Your task to perform on an android device: Turn on the flashlight Image 0: 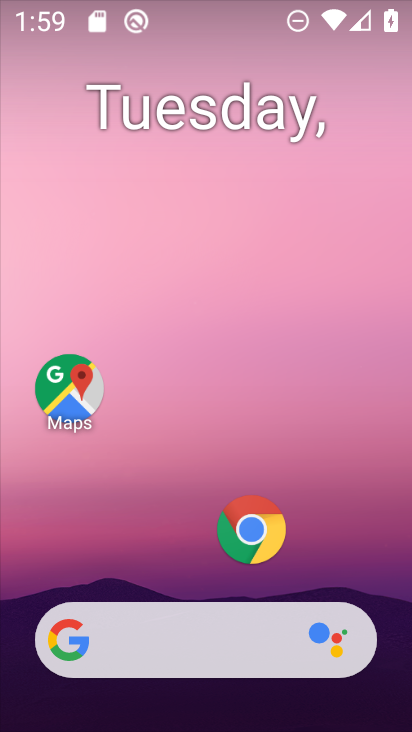
Step 0: drag from (244, 681) to (205, 20)
Your task to perform on an android device: Turn on the flashlight Image 1: 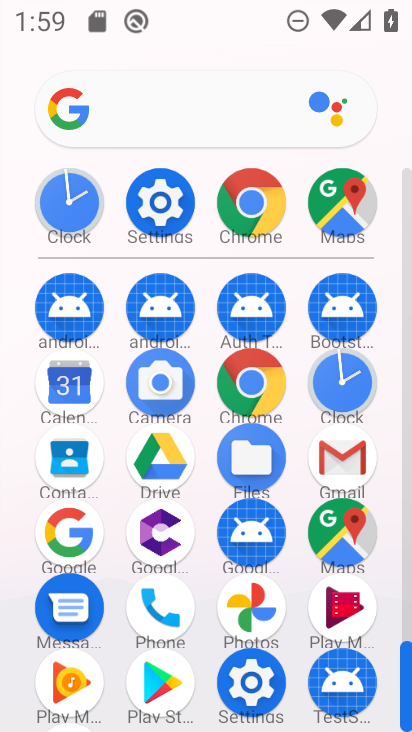
Step 1: click (162, 202)
Your task to perform on an android device: Turn on the flashlight Image 2: 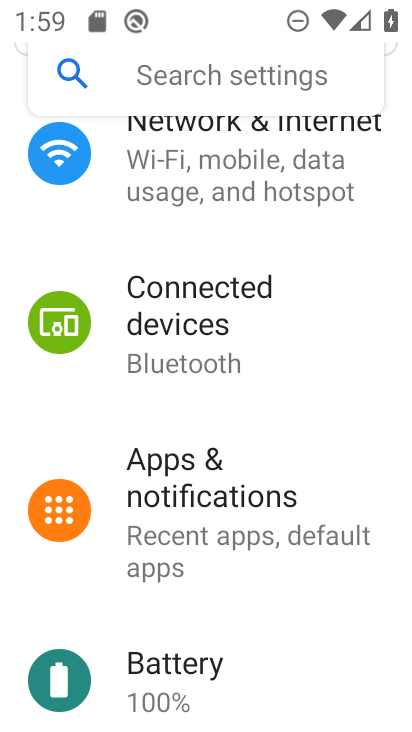
Step 2: click (171, 73)
Your task to perform on an android device: Turn on the flashlight Image 3: 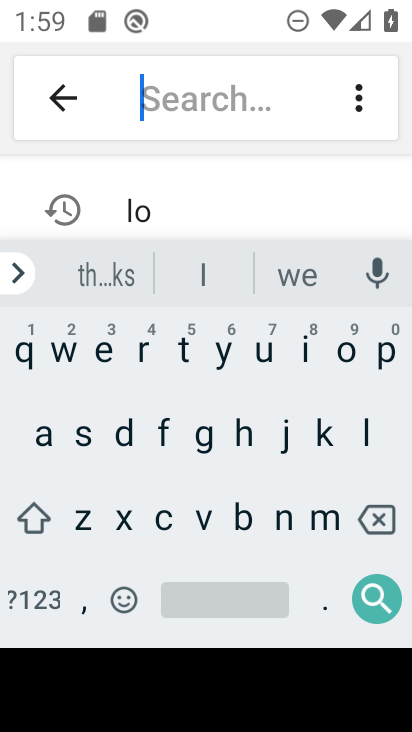
Step 3: click (164, 423)
Your task to perform on an android device: Turn on the flashlight Image 4: 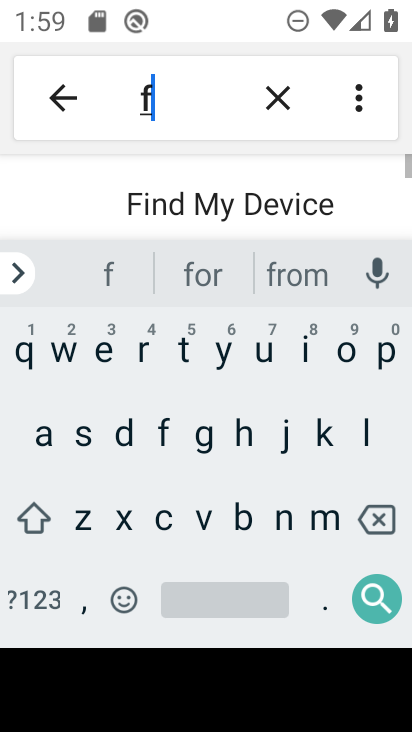
Step 4: click (370, 423)
Your task to perform on an android device: Turn on the flashlight Image 5: 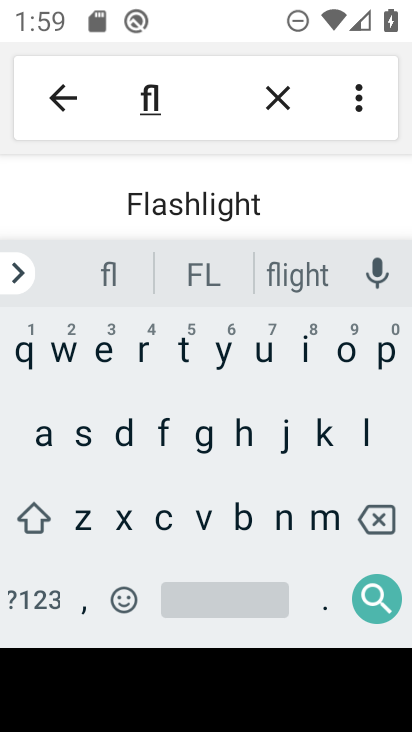
Step 5: click (187, 207)
Your task to perform on an android device: Turn on the flashlight Image 6: 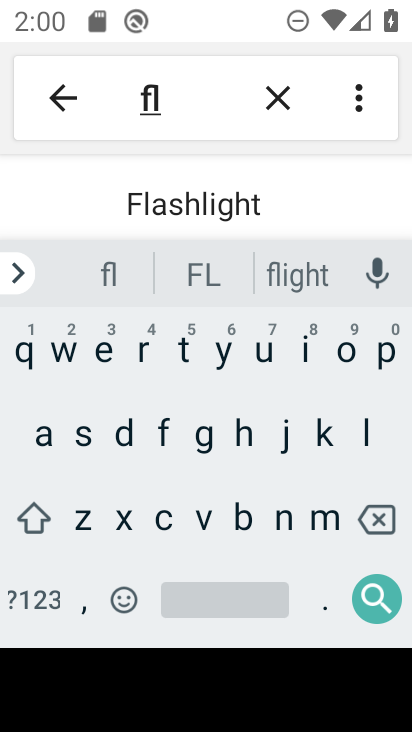
Step 6: task complete